Your task to perform on an android device: uninstall "Adobe Acrobat Reader" Image 0: 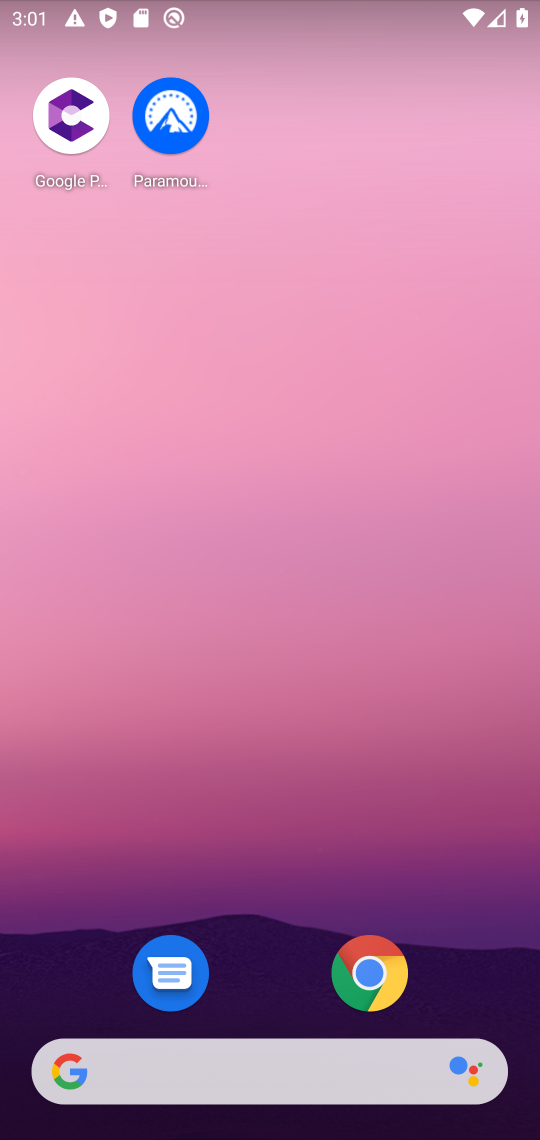
Step 0: drag from (221, 1080) to (270, 374)
Your task to perform on an android device: uninstall "Adobe Acrobat Reader" Image 1: 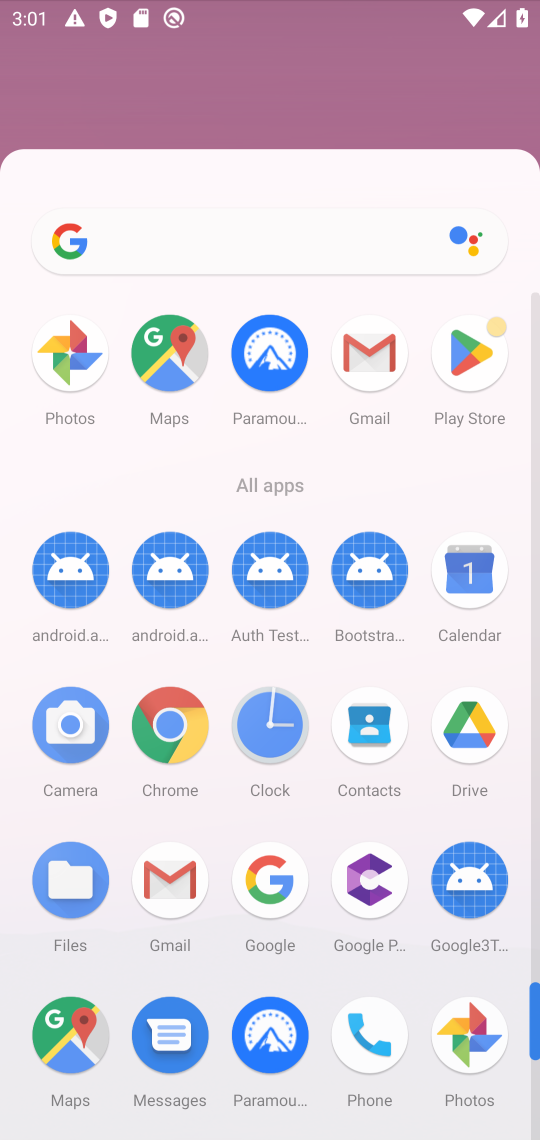
Step 1: drag from (328, 742) to (309, 357)
Your task to perform on an android device: uninstall "Adobe Acrobat Reader" Image 2: 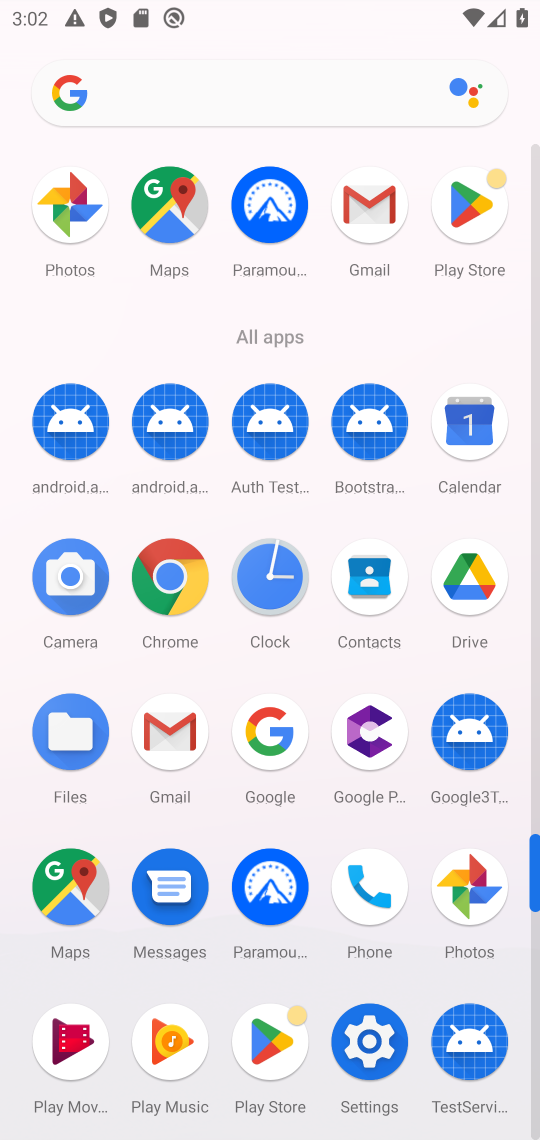
Step 2: click (471, 221)
Your task to perform on an android device: uninstall "Adobe Acrobat Reader" Image 3: 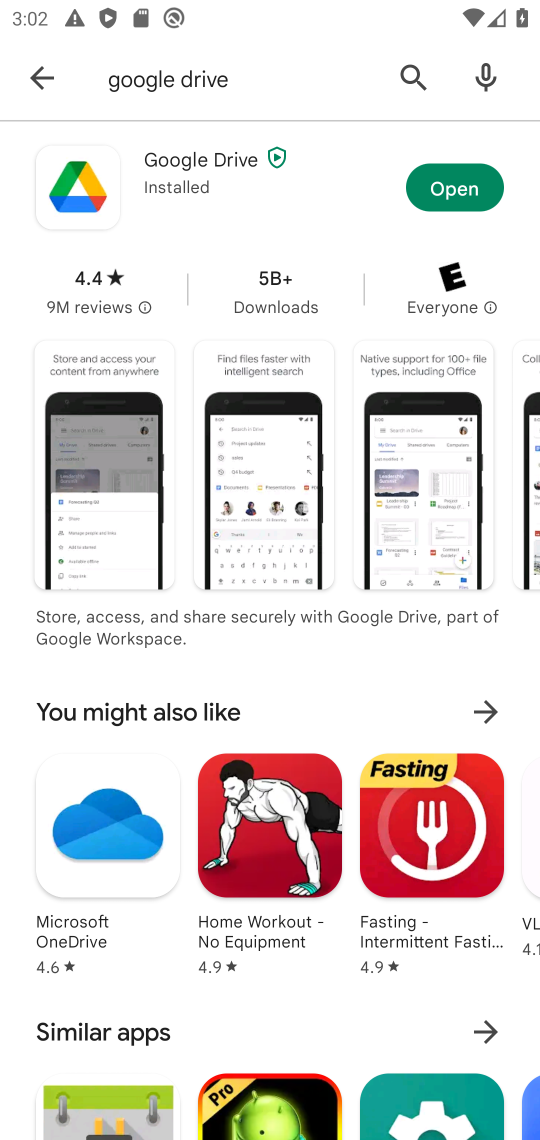
Step 3: click (32, 74)
Your task to perform on an android device: uninstall "Adobe Acrobat Reader" Image 4: 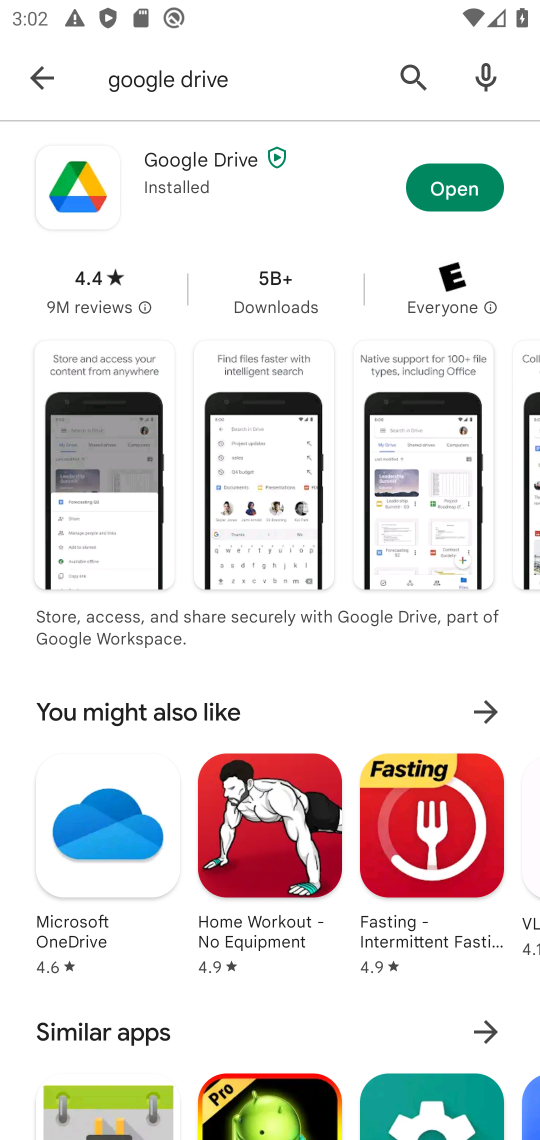
Step 4: click (37, 73)
Your task to perform on an android device: uninstall "Adobe Acrobat Reader" Image 5: 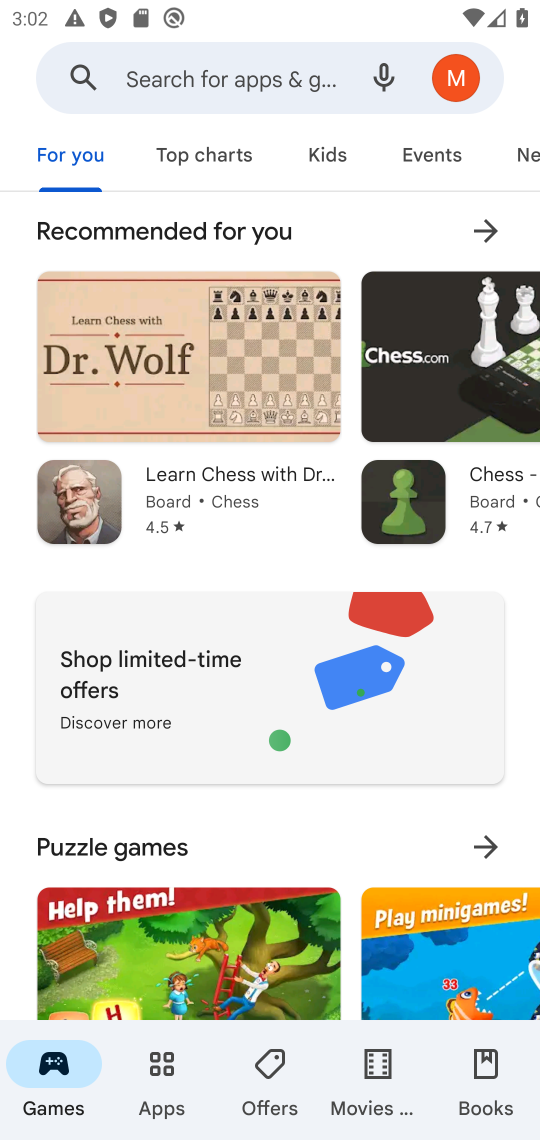
Step 5: click (210, 91)
Your task to perform on an android device: uninstall "Adobe Acrobat Reader" Image 6: 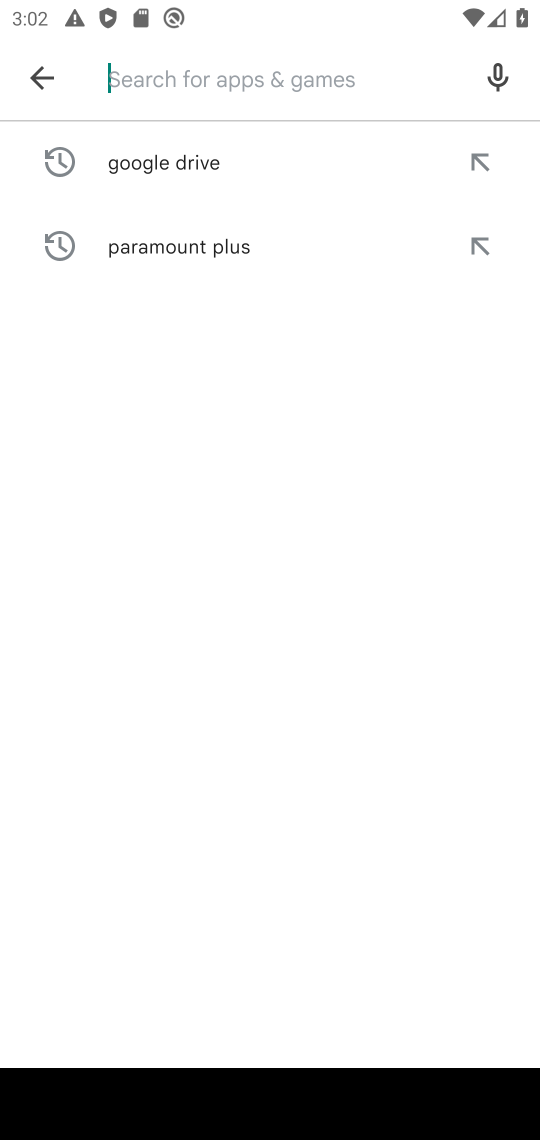
Step 6: type "Adobe Acrobot Reader"
Your task to perform on an android device: uninstall "Adobe Acrobat Reader" Image 7: 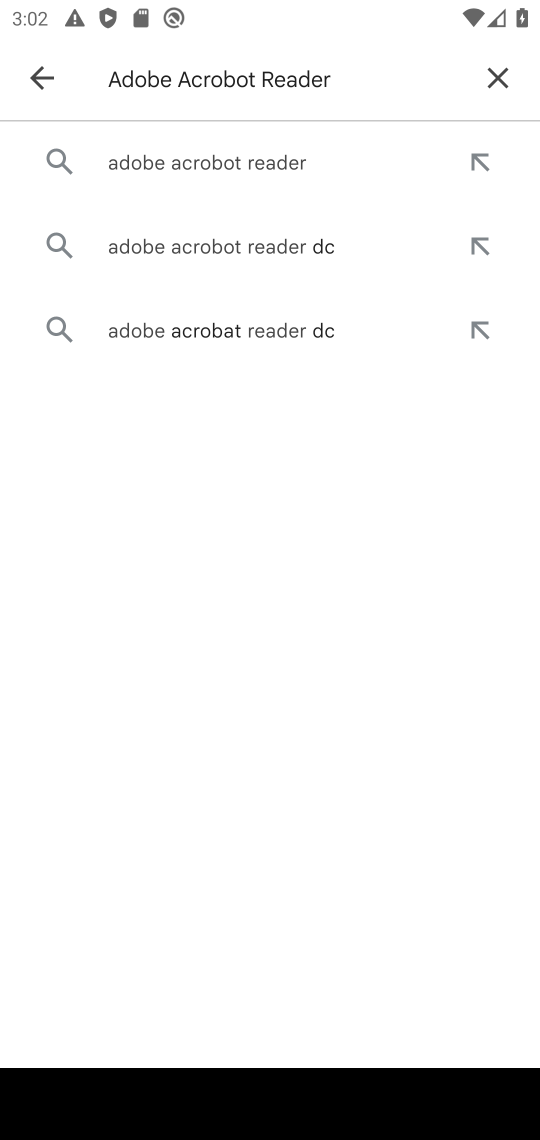
Step 7: click (209, 169)
Your task to perform on an android device: uninstall "Adobe Acrobat Reader" Image 8: 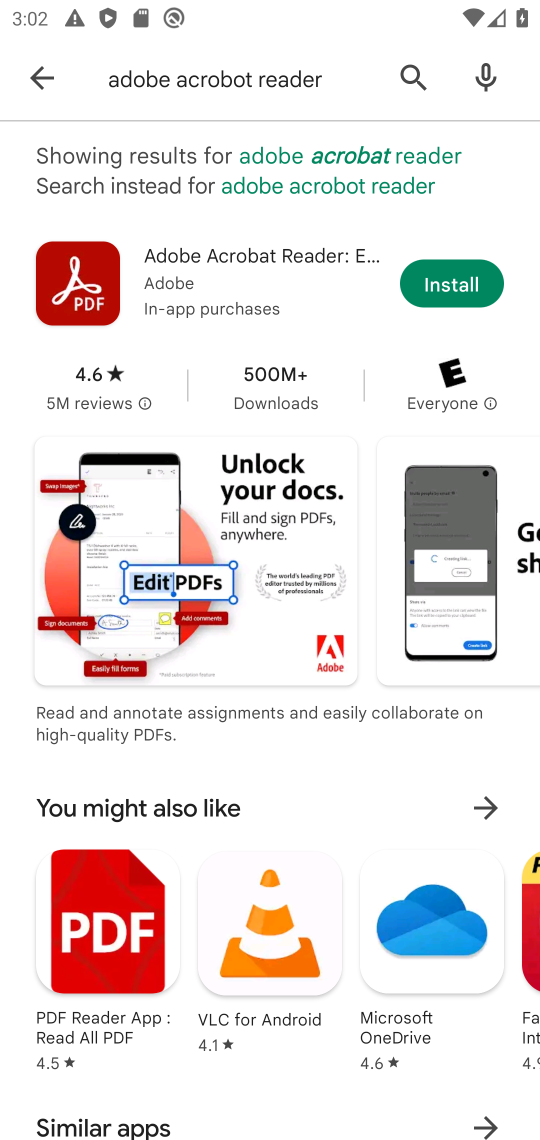
Step 8: click (449, 286)
Your task to perform on an android device: uninstall "Adobe Acrobat Reader" Image 9: 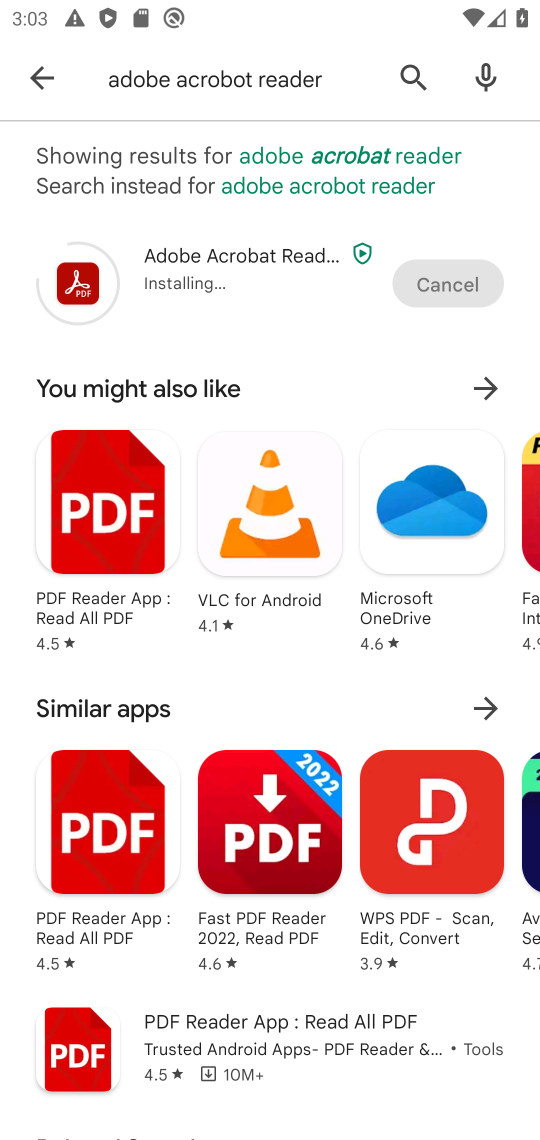
Step 9: click (462, 284)
Your task to perform on an android device: uninstall "Adobe Acrobat Reader" Image 10: 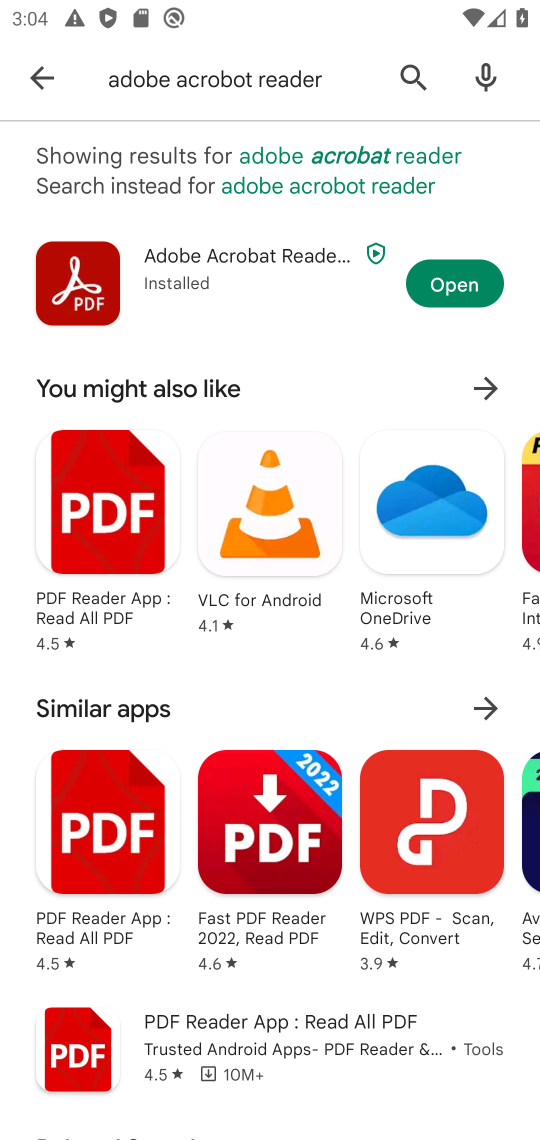
Step 10: click (480, 283)
Your task to perform on an android device: uninstall "Adobe Acrobat Reader" Image 11: 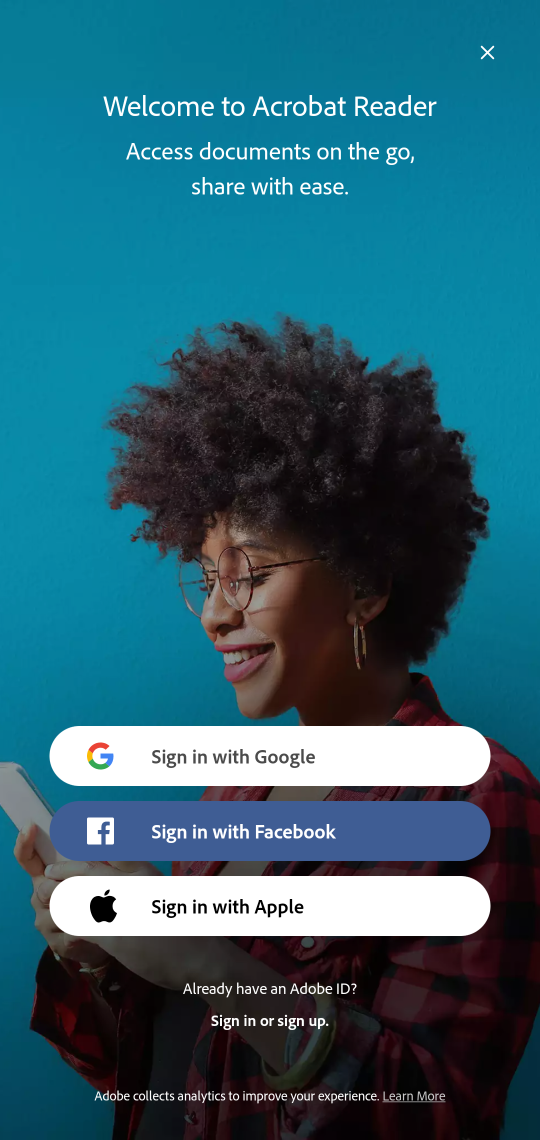
Step 11: click (503, 50)
Your task to perform on an android device: uninstall "Adobe Acrobat Reader" Image 12: 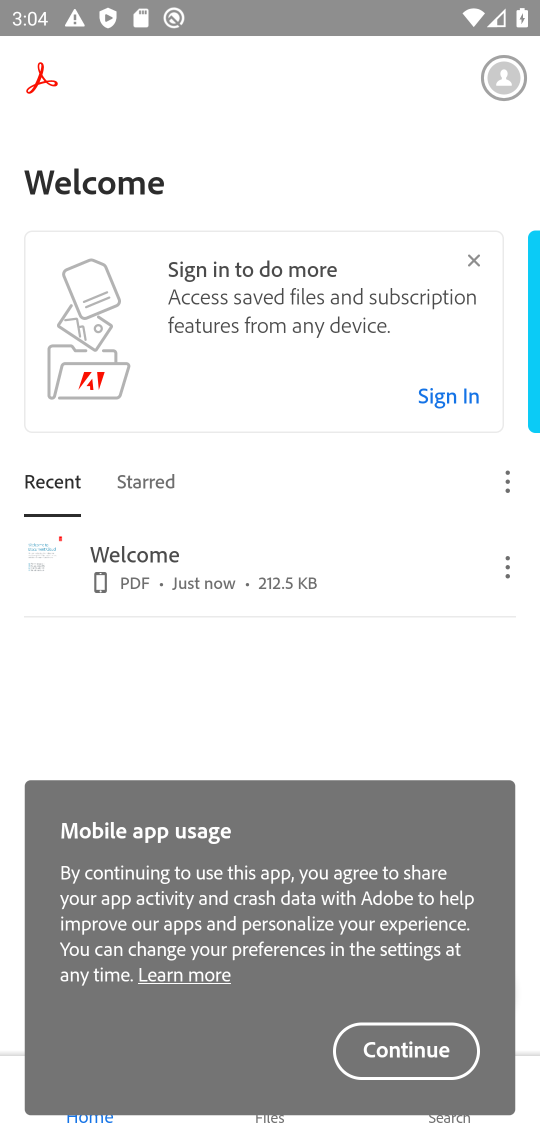
Step 12: task complete